Your task to perform on an android device: turn notification dots off Image 0: 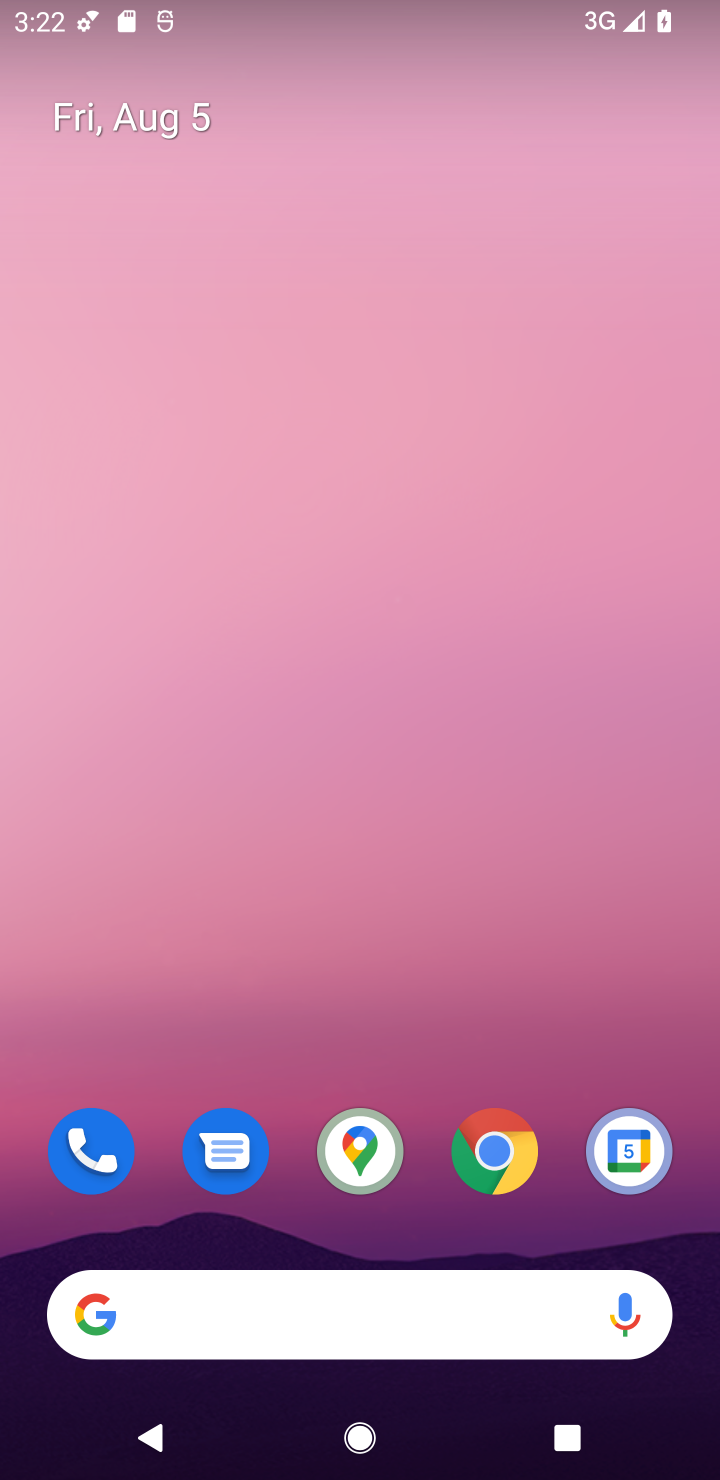
Step 0: drag from (423, 1090) to (325, 44)
Your task to perform on an android device: turn notification dots off Image 1: 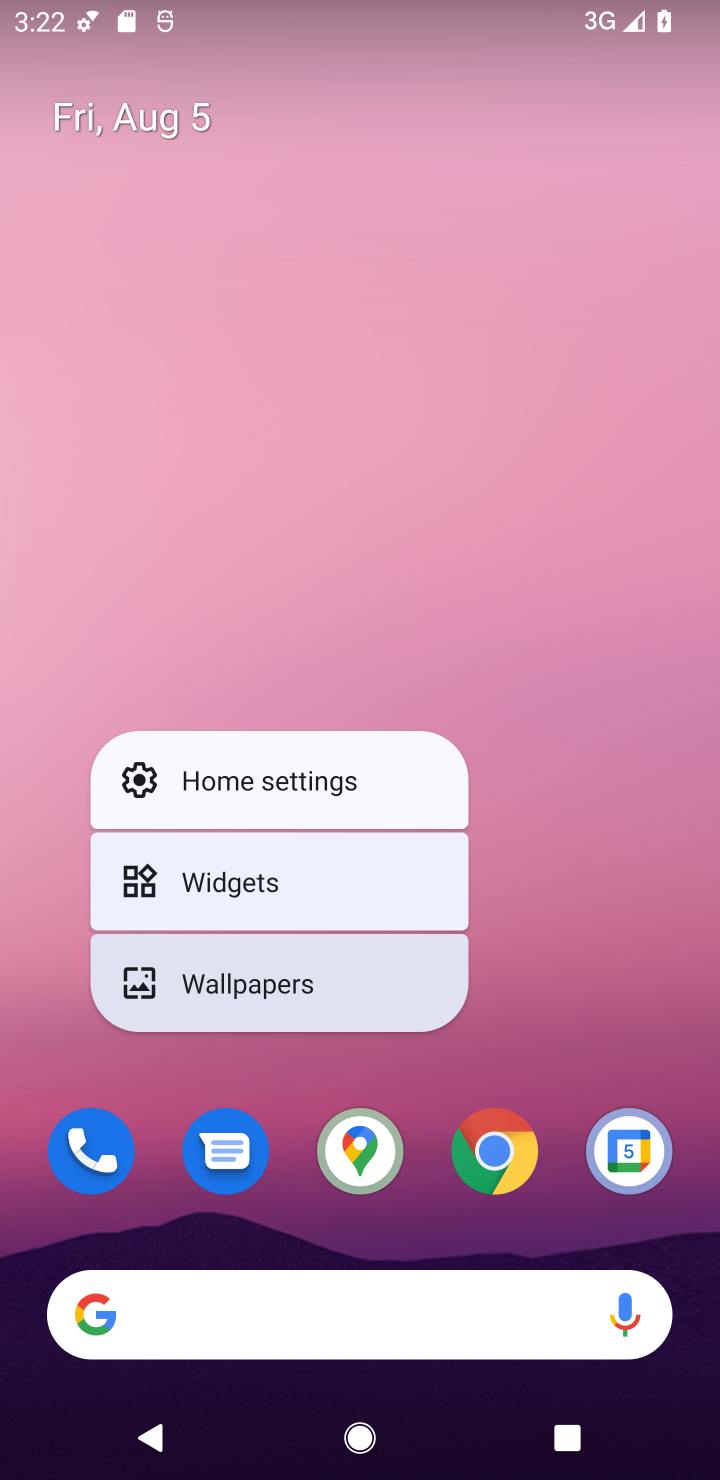
Step 1: click (616, 847)
Your task to perform on an android device: turn notification dots off Image 2: 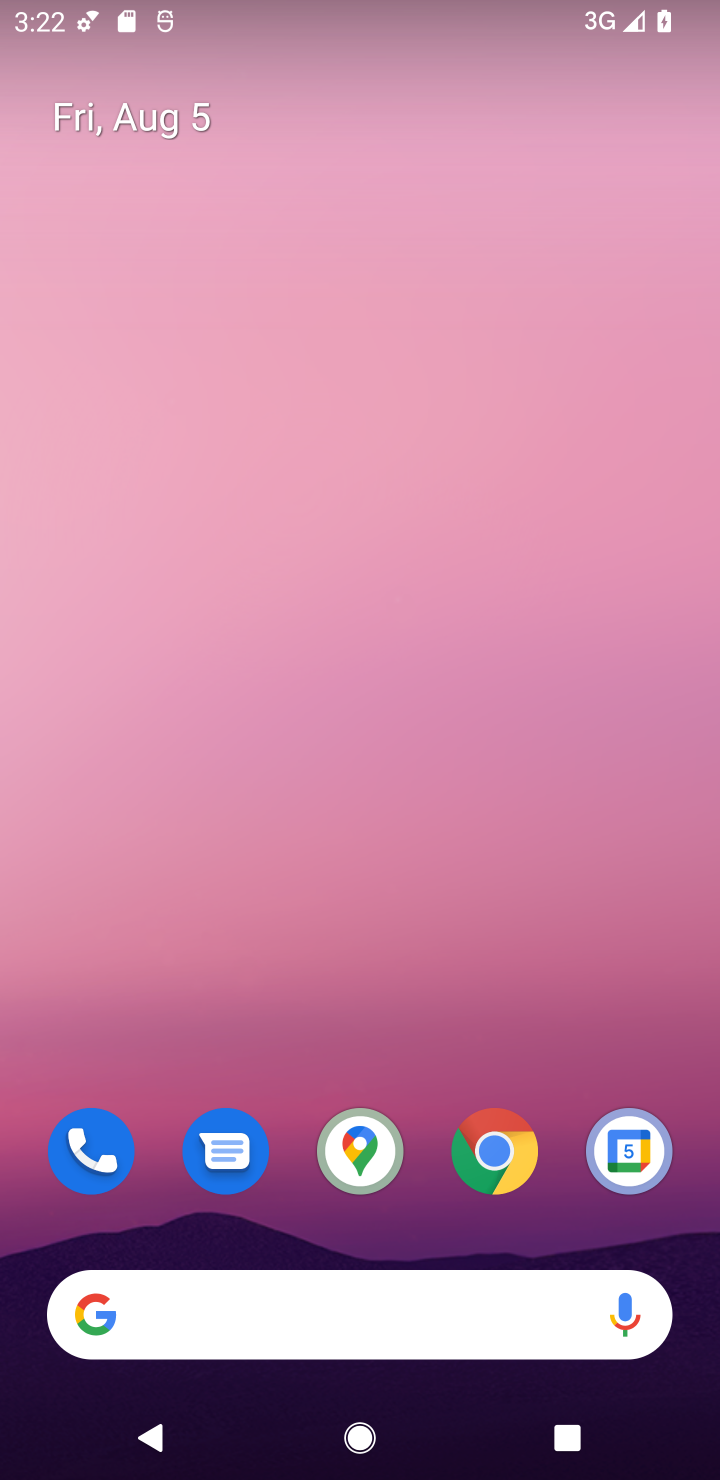
Step 2: drag from (424, 1120) to (491, 430)
Your task to perform on an android device: turn notification dots off Image 3: 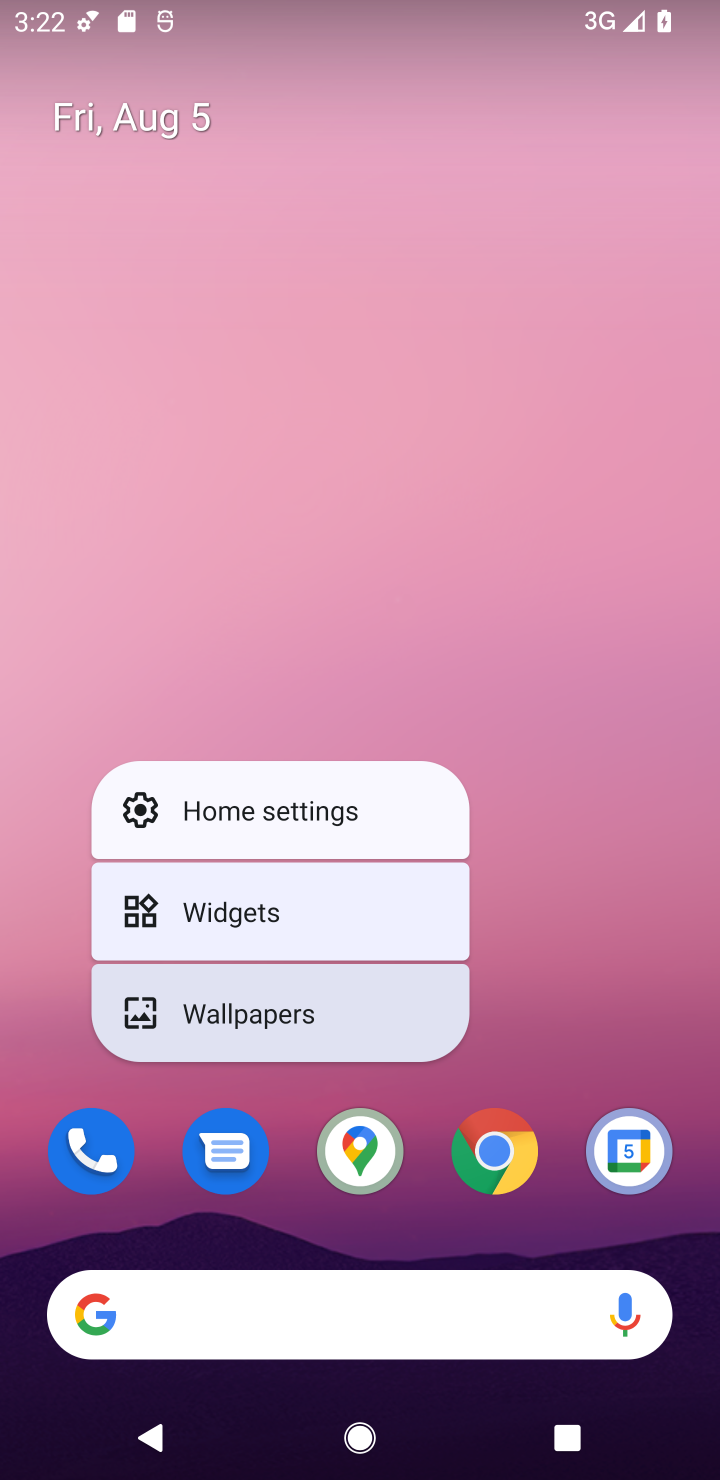
Step 3: click (674, 977)
Your task to perform on an android device: turn notification dots off Image 4: 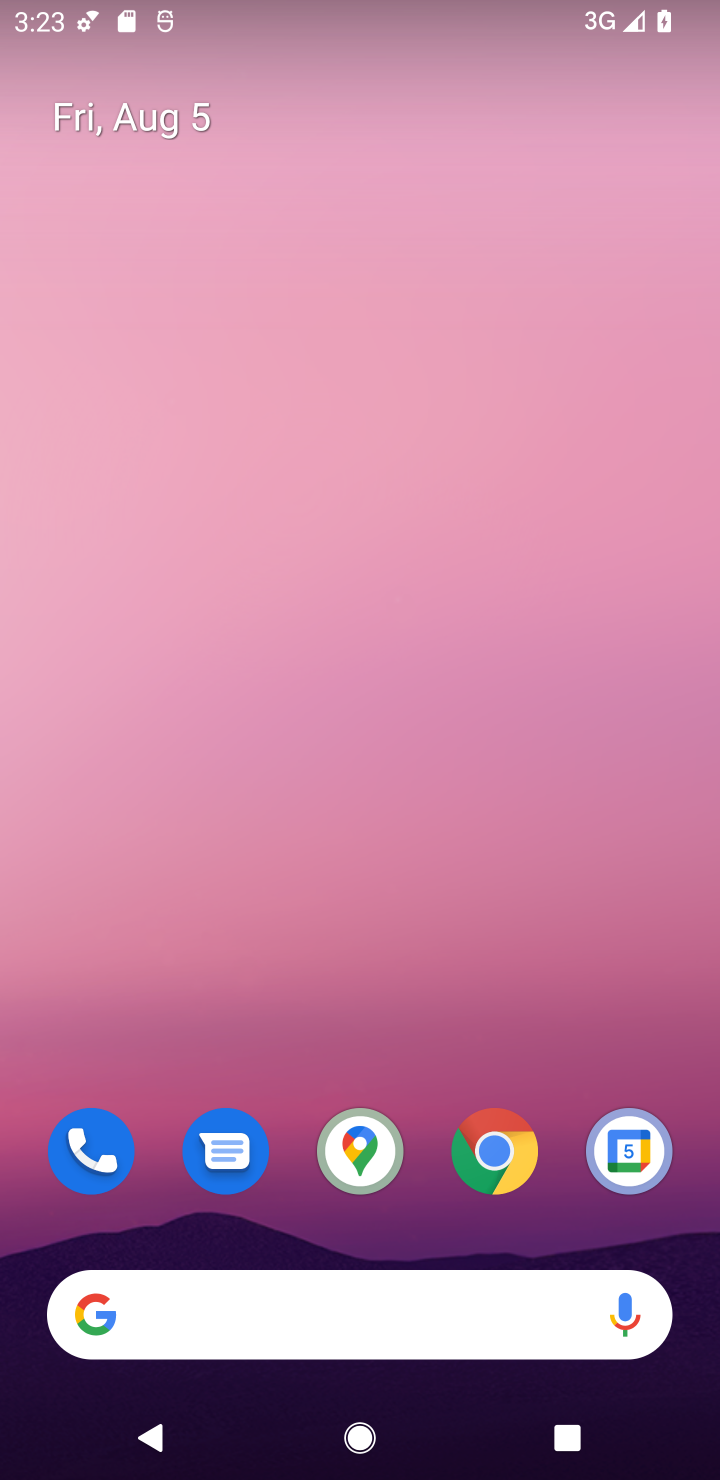
Step 4: drag from (436, 1093) to (453, 347)
Your task to perform on an android device: turn notification dots off Image 5: 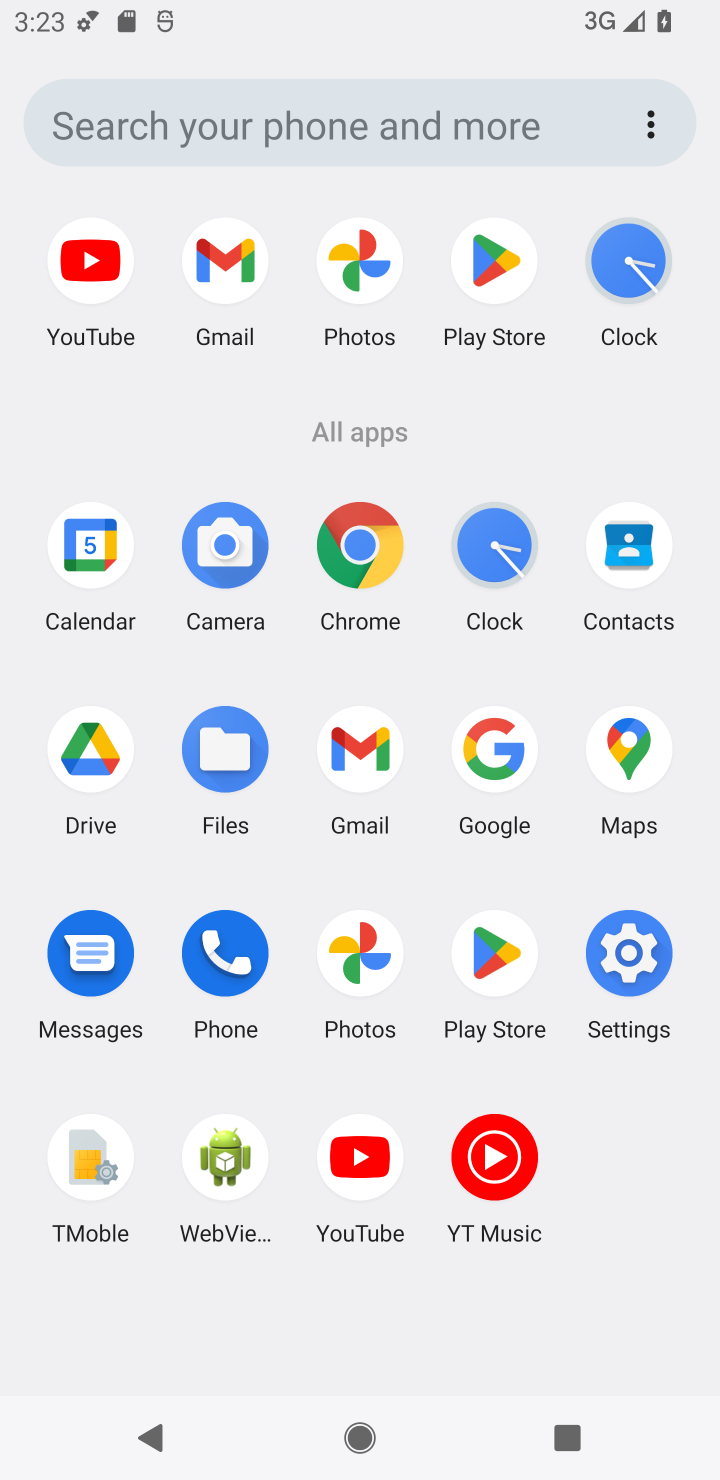
Step 5: click (640, 932)
Your task to perform on an android device: turn notification dots off Image 6: 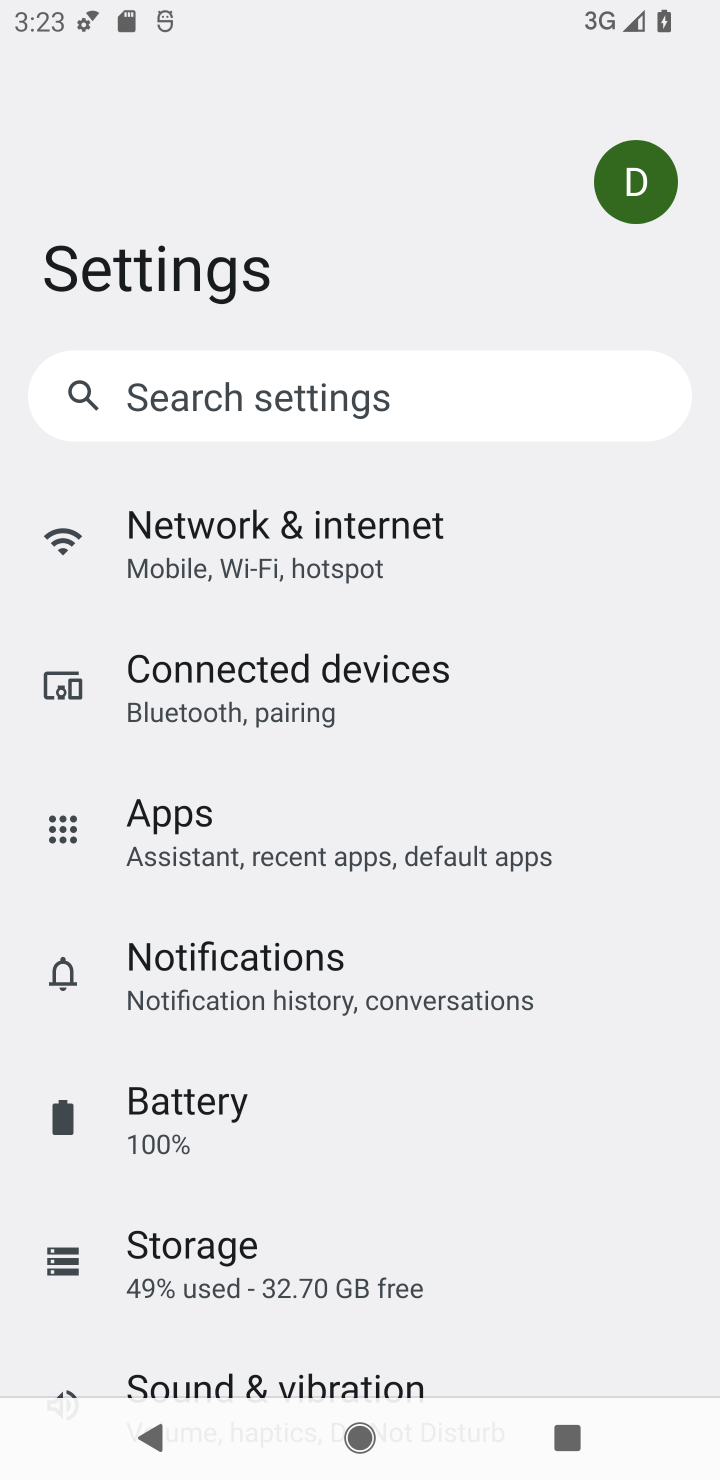
Step 6: click (236, 975)
Your task to perform on an android device: turn notification dots off Image 7: 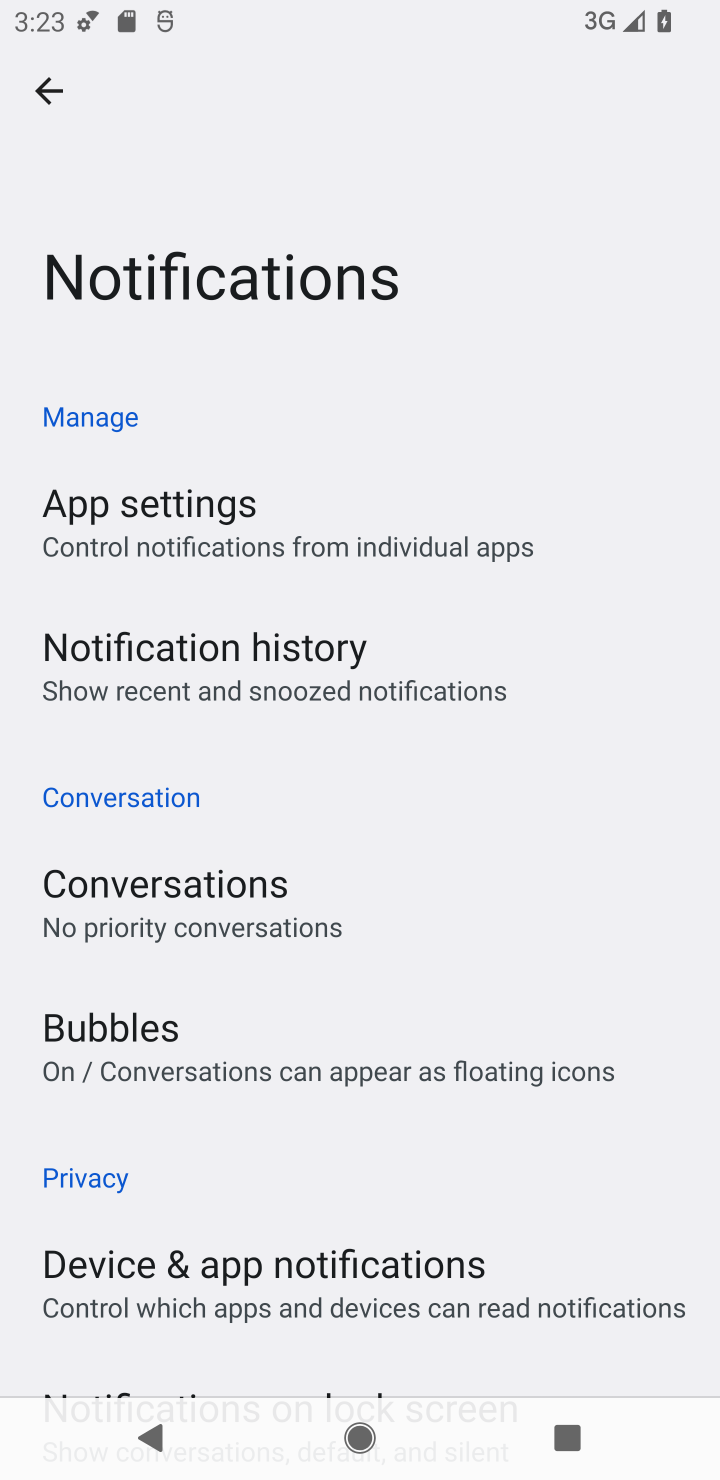
Step 7: drag from (519, 1139) to (568, 461)
Your task to perform on an android device: turn notification dots off Image 8: 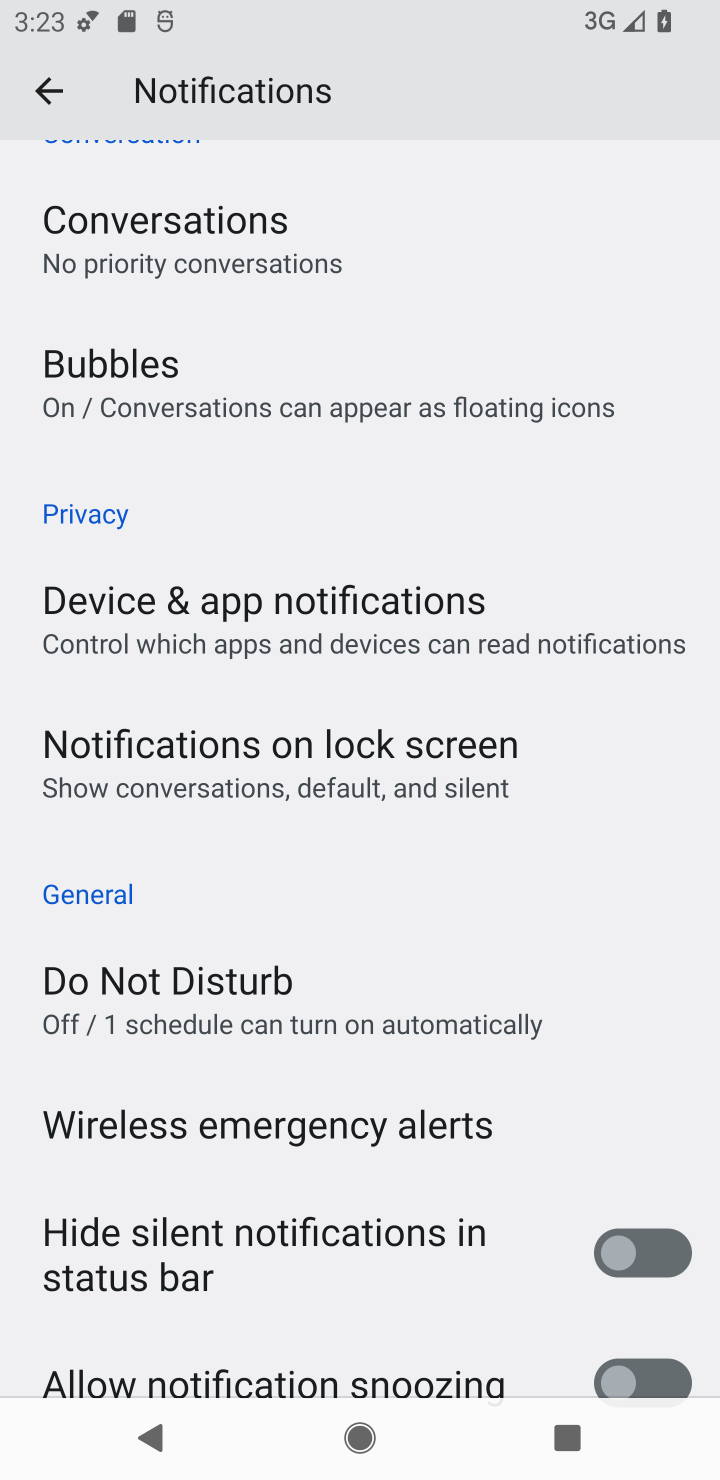
Step 8: drag from (177, 893) to (205, 522)
Your task to perform on an android device: turn notification dots off Image 9: 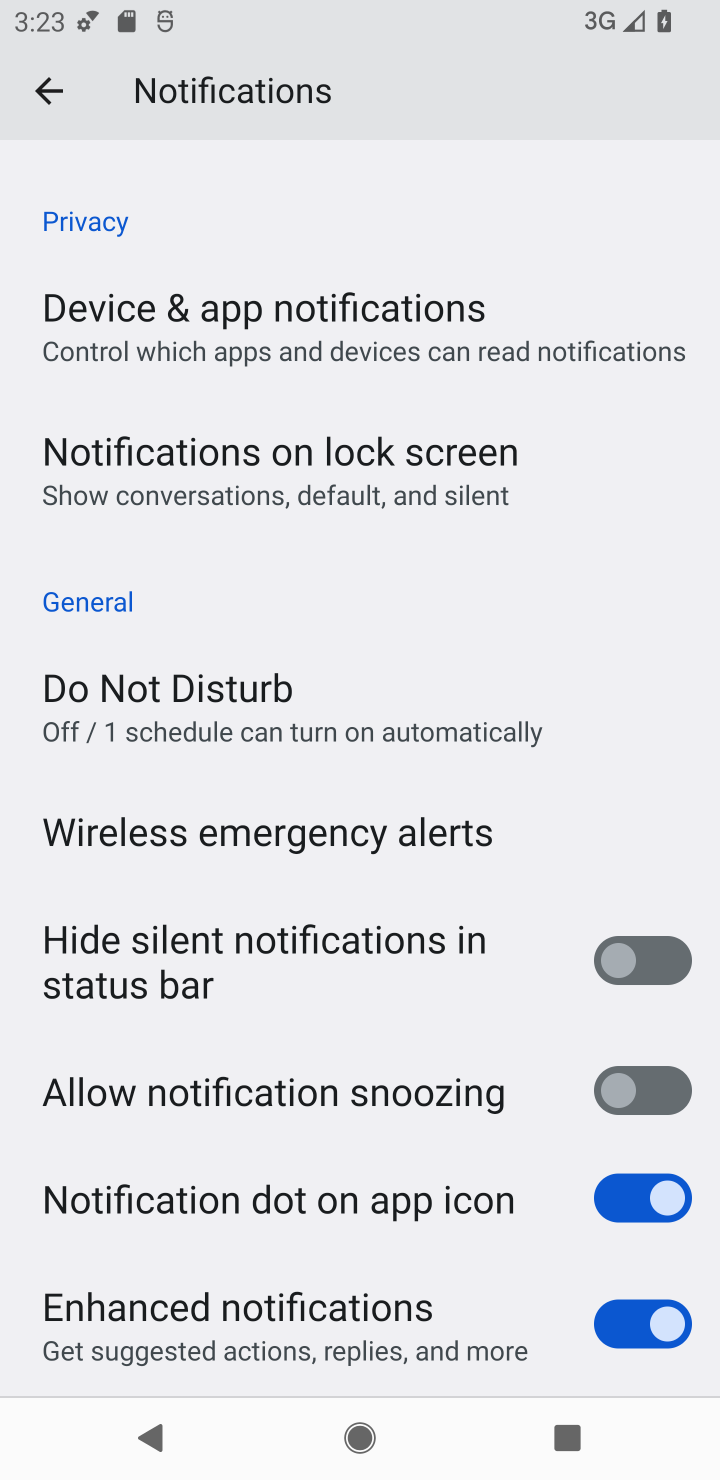
Step 9: click (637, 1190)
Your task to perform on an android device: turn notification dots off Image 10: 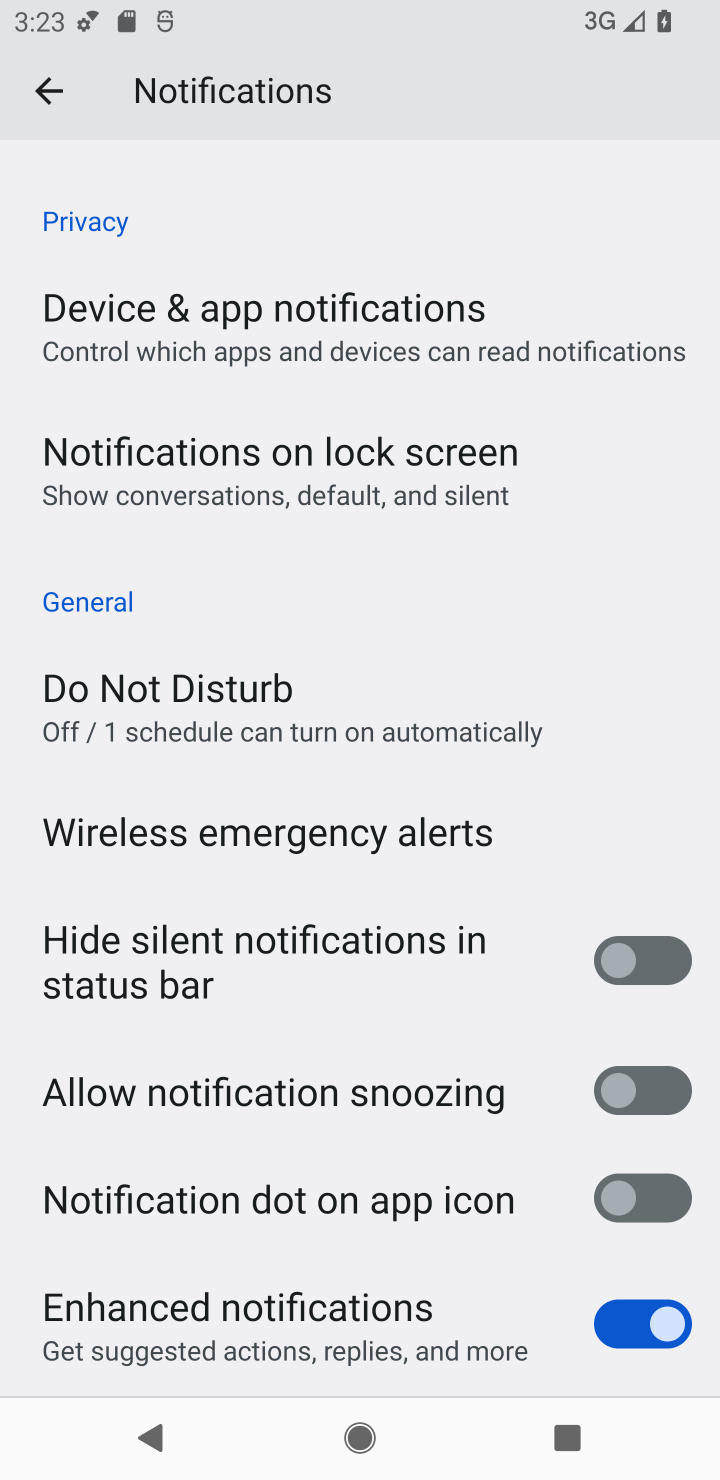
Step 10: task complete